Your task to perform on an android device: add a contact Image 0: 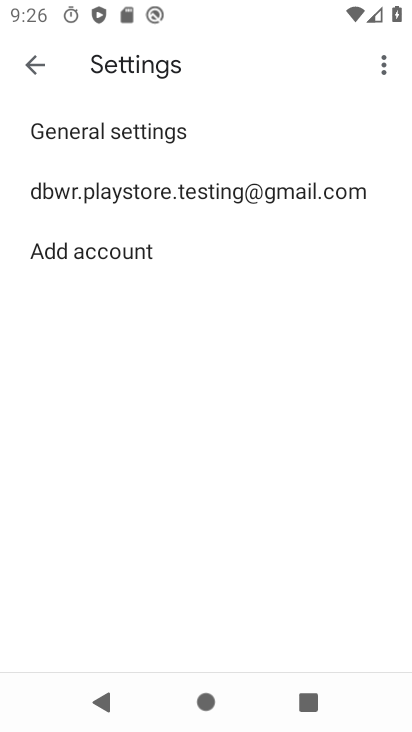
Step 0: press home button
Your task to perform on an android device: add a contact Image 1: 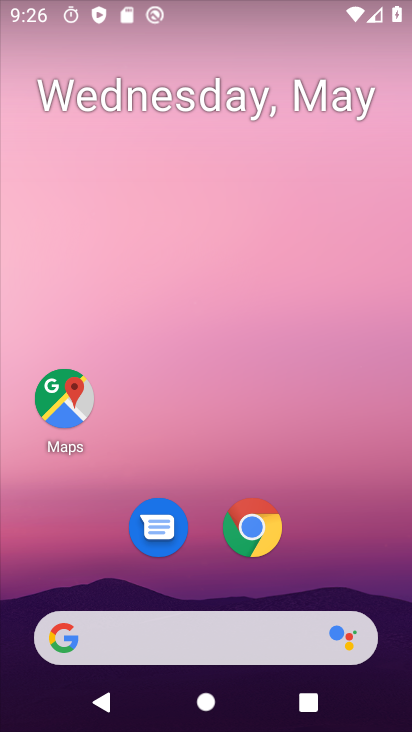
Step 1: drag from (291, 563) to (284, 33)
Your task to perform on an android device: add a contact Image 2: 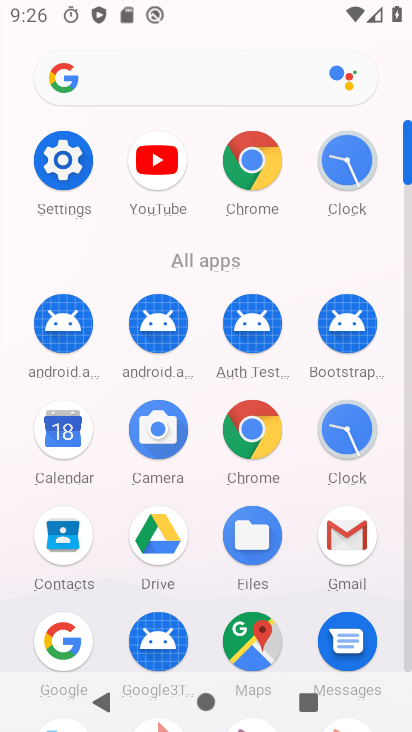
Step 2: click (57, 539)
Your task to perform on an android device: add a contact Image 3: 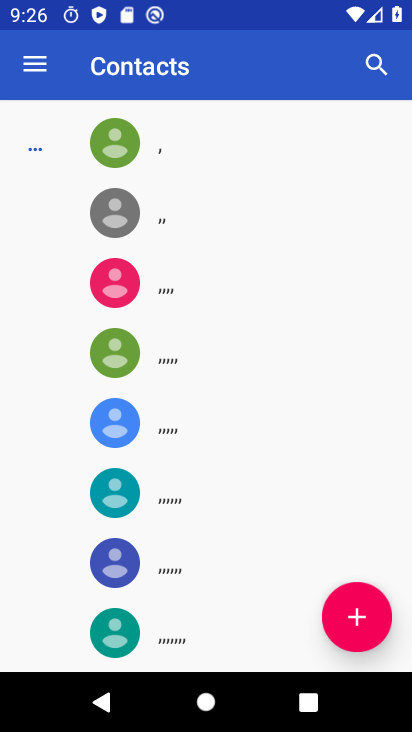
Step 3: click (338, 635)
Your task to perform on an android device: add a contact Image 4: 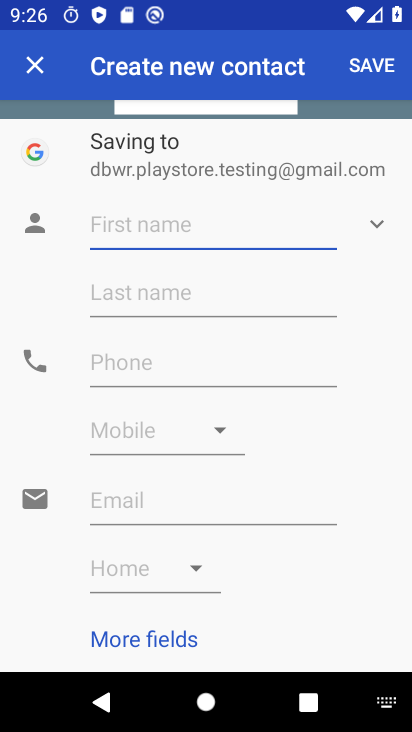
Step 4: type "lkkkj"
Your task to perform on an android device: add a contact Image 5: 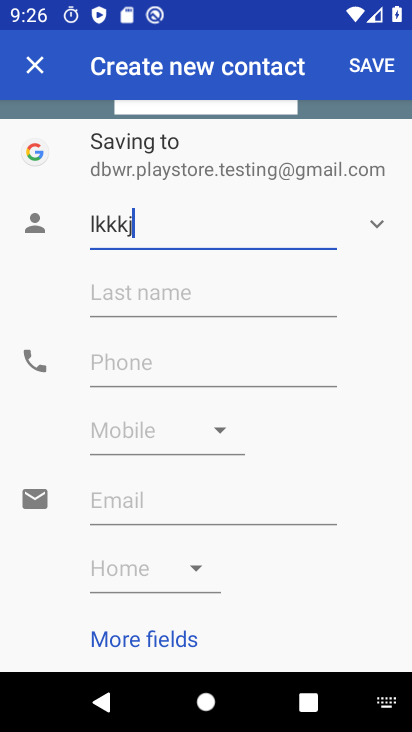
Step 5: click (126, 365)
Your task to perform on an android device: add a contact Image 6: 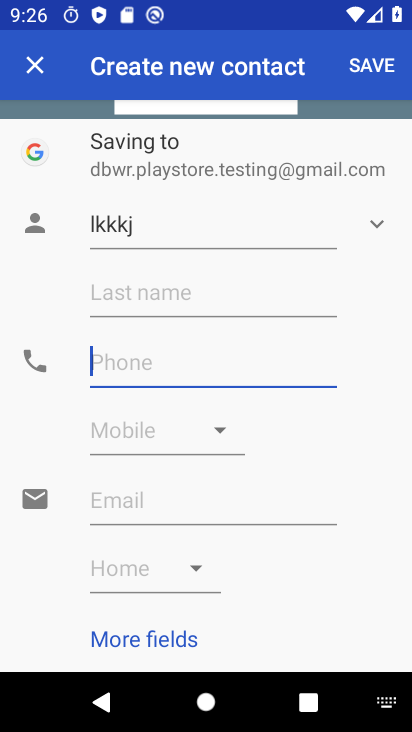
Step 6: type "0012"
Your task to perform on an android device: add a contact Image 7: 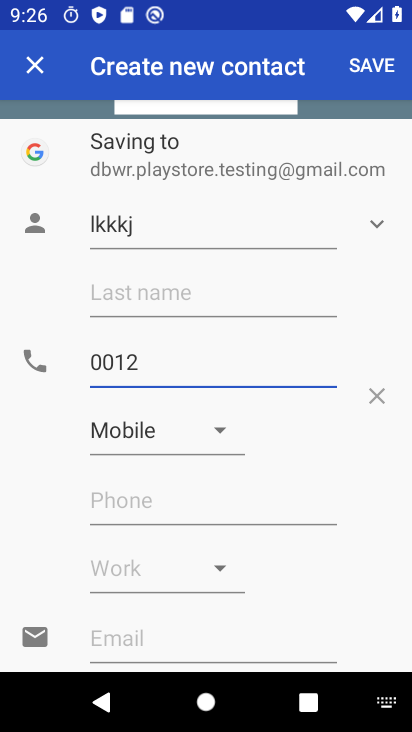
Step 7: click (364, 58)
Your task to perform on an android device: add a contact Image 8: 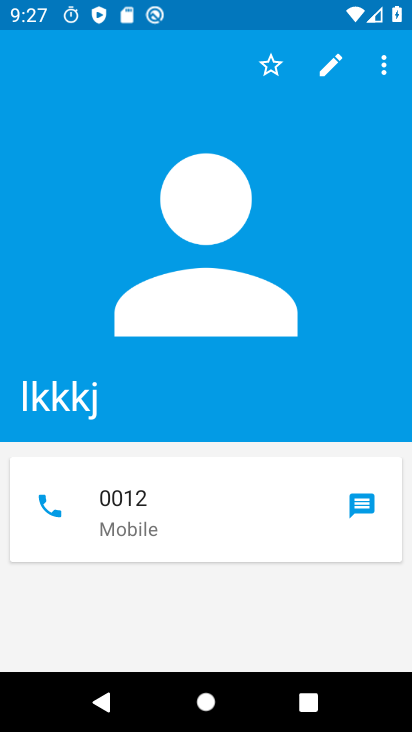
Step 8: task complete